Your task to perform on an android device: open app "Lyft - Rideshare, Bikes, Scooters & Transit" Image 0: 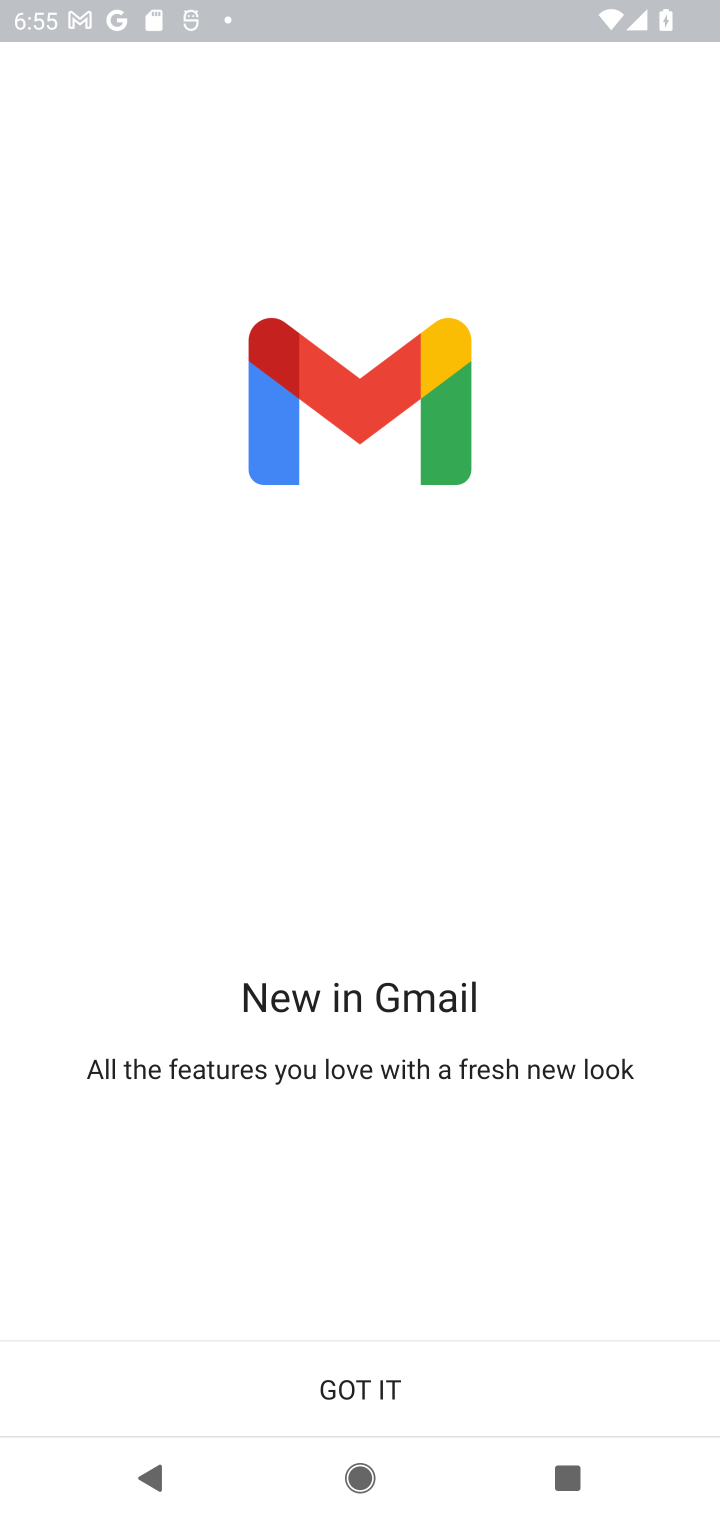
Step 0: press home button
Your task to perform on an android device: open app "Lyft - Rideshare, Bikes, Scooters & Transit" Image 1: 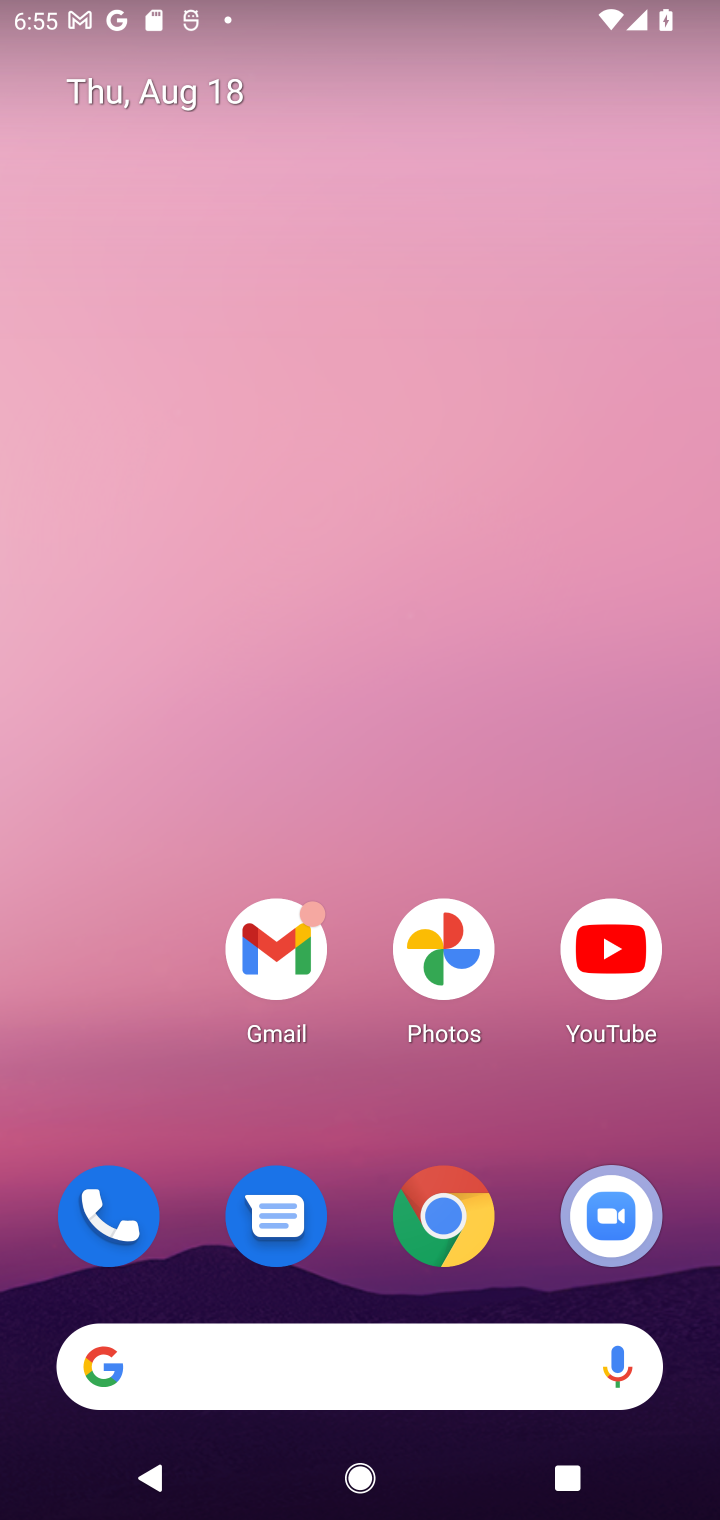
Step 1: drag from (514, 1111) to (509, 343)
Your task to perform on an android device: open app "Lyft - Rideshare, Bikes, Scooters & Transit" Image 2: 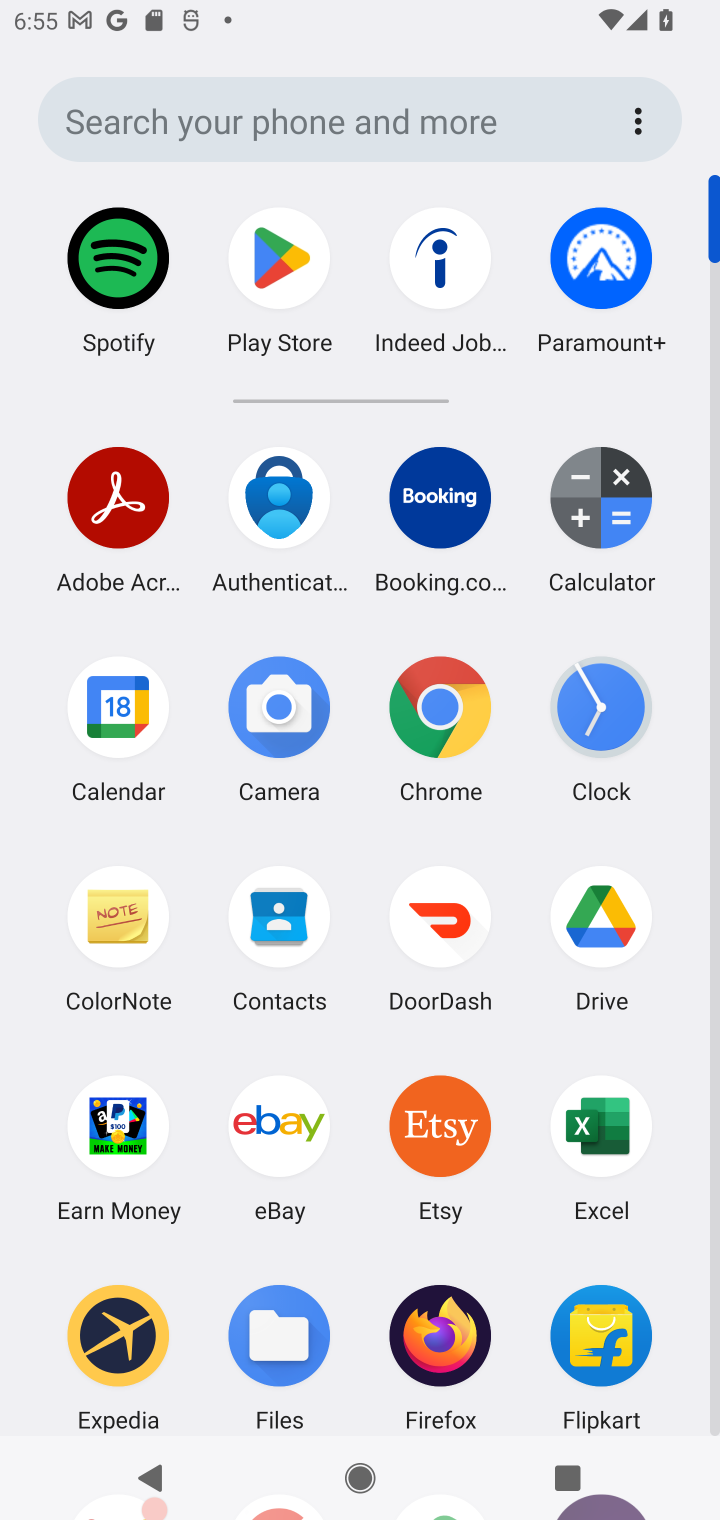
Step 2: drag from (520, 1274) to (460, 414)
Your task to perform on an android device: open app "Lyft - Rideshare, Bikes, Scooters & Transit" Image 3: 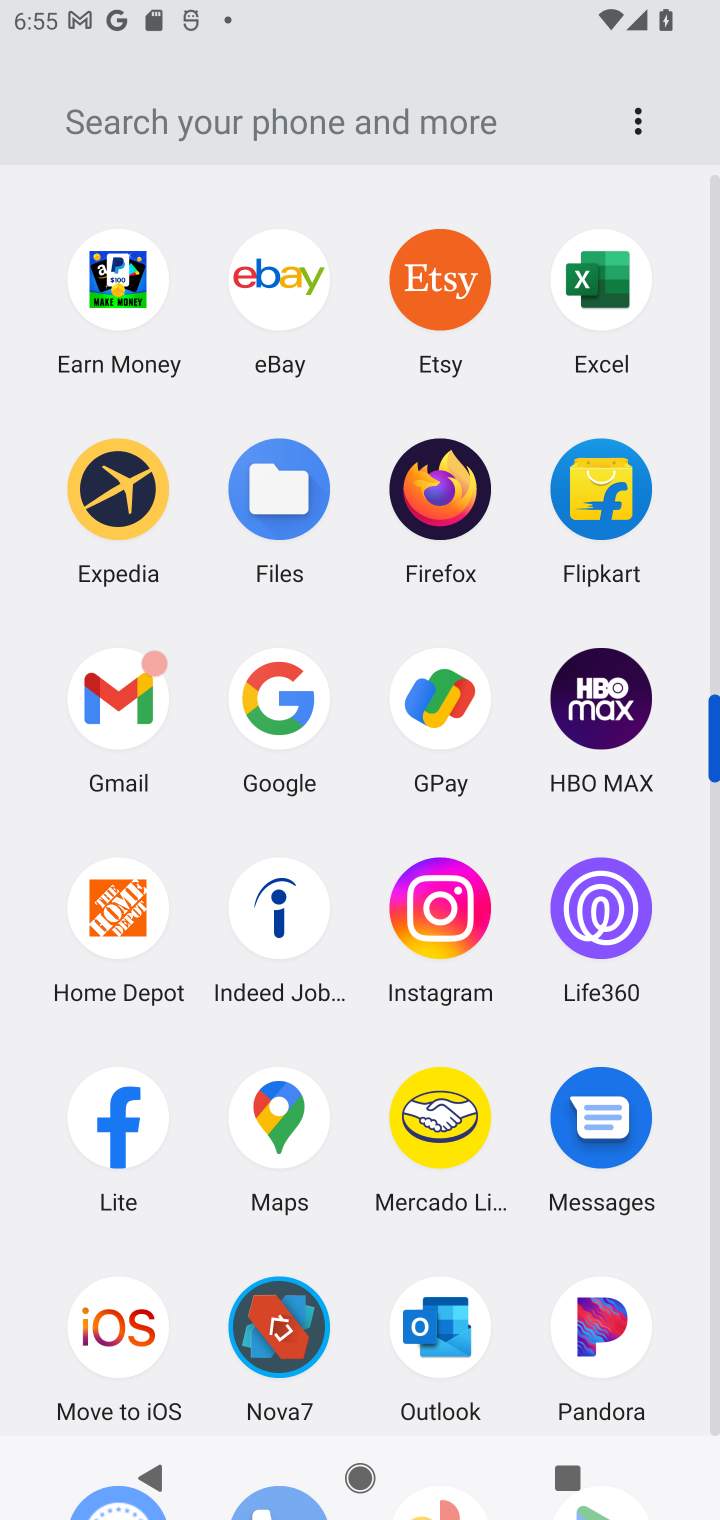
Step 3: drag from (527, 1268) to (486, 490)
Your task to perform on an android device: open app "Lyft - Rideshare, Bikes, Scooters & Transit" Image 4: 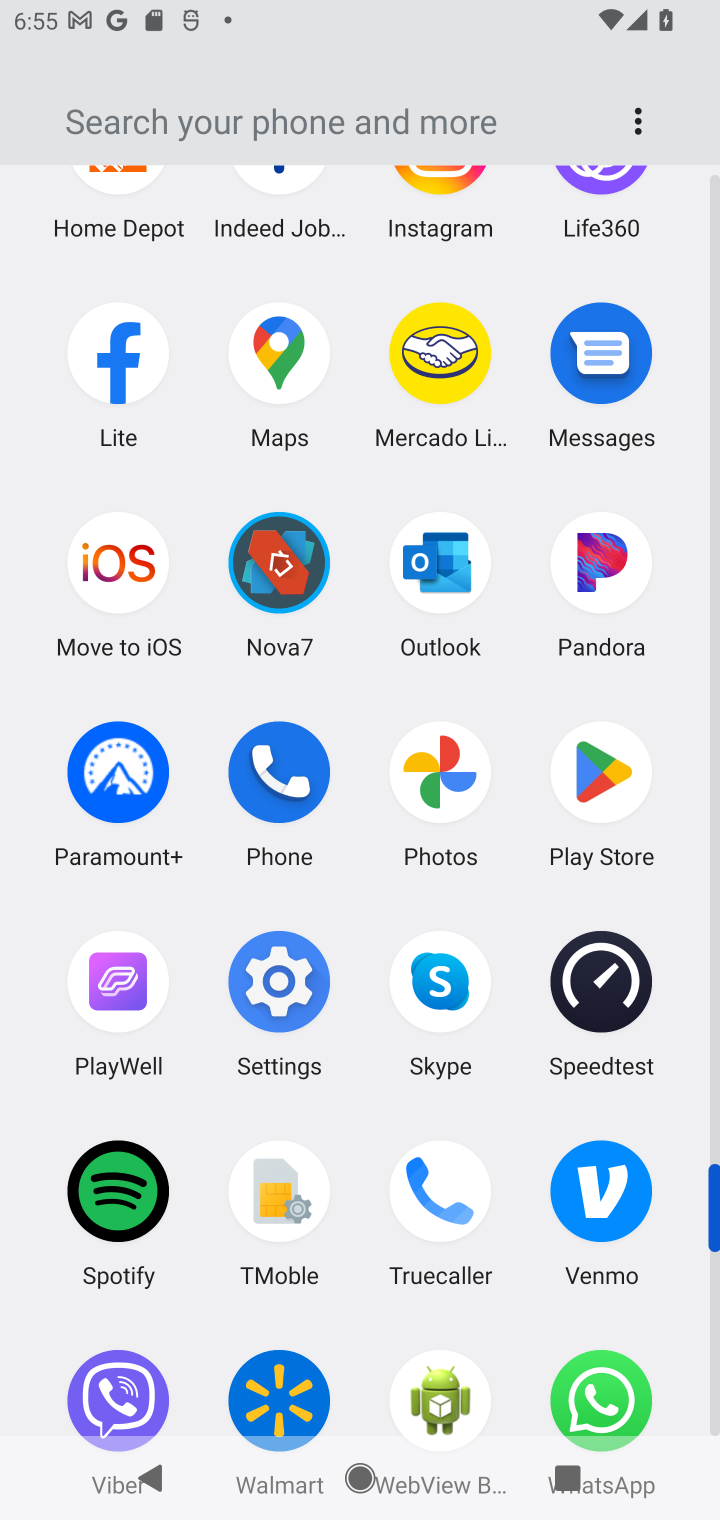
Step 4: click (597, 769)
Your task to perform on an android device: open app "Lyft - Rideshare, Bikes, Scooters & Transit" Image 5: 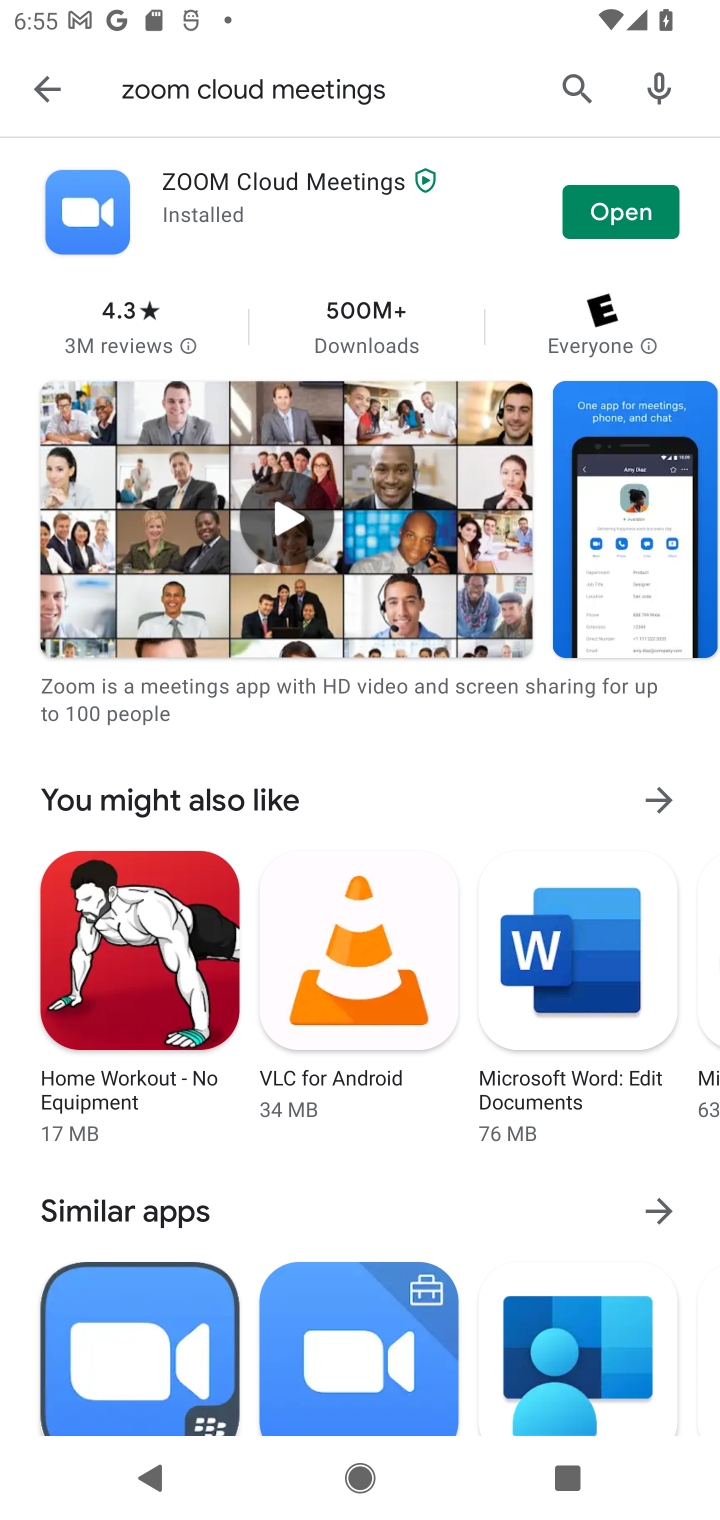
Step 5: click (576, 86)
Your task to perform on an android device: open app "Lyft - Rideshare, Bikes, Scooters & Transit" Image 6: 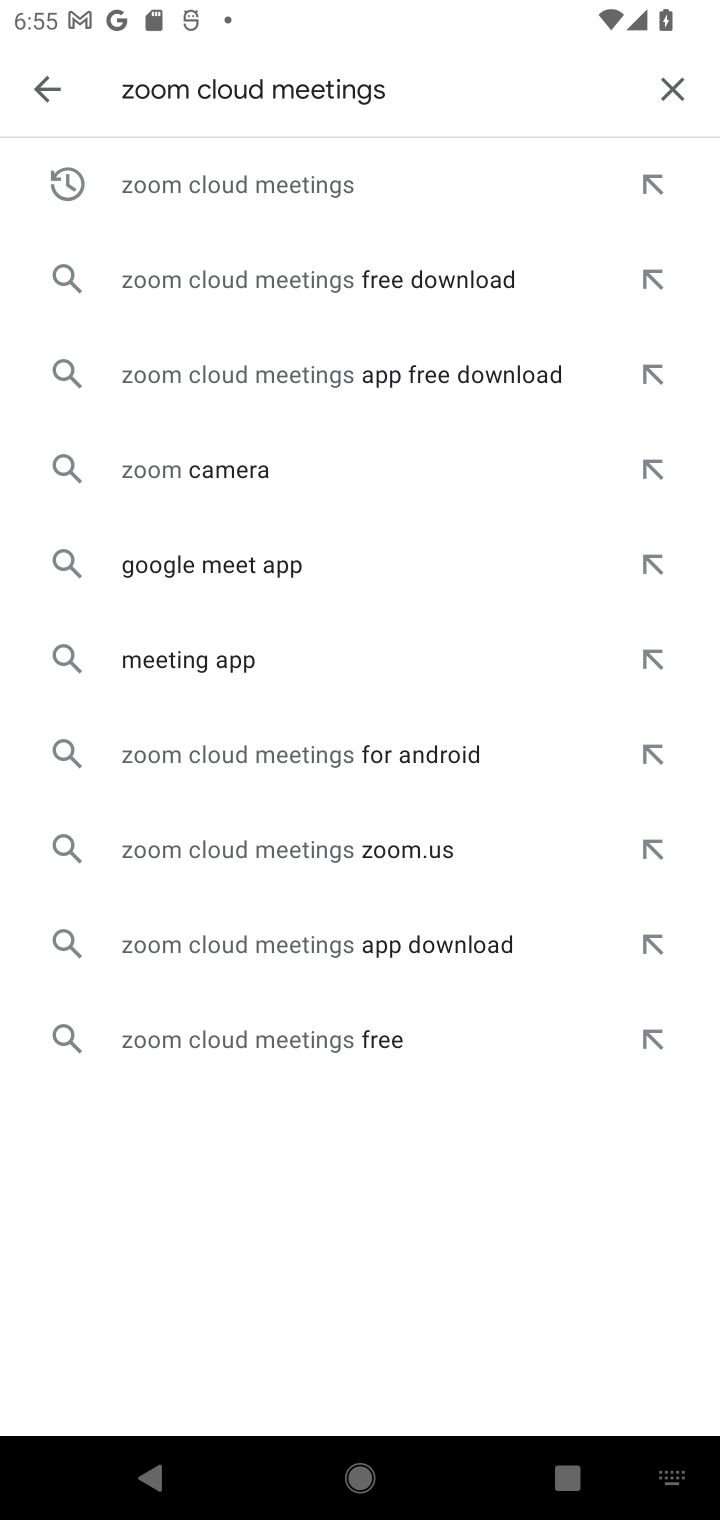
Step 6: click (671, 81)
Your task to perform on an android device: open app "Lyft - Rideshare, Bikes, Scooters & Transit" Image 7: 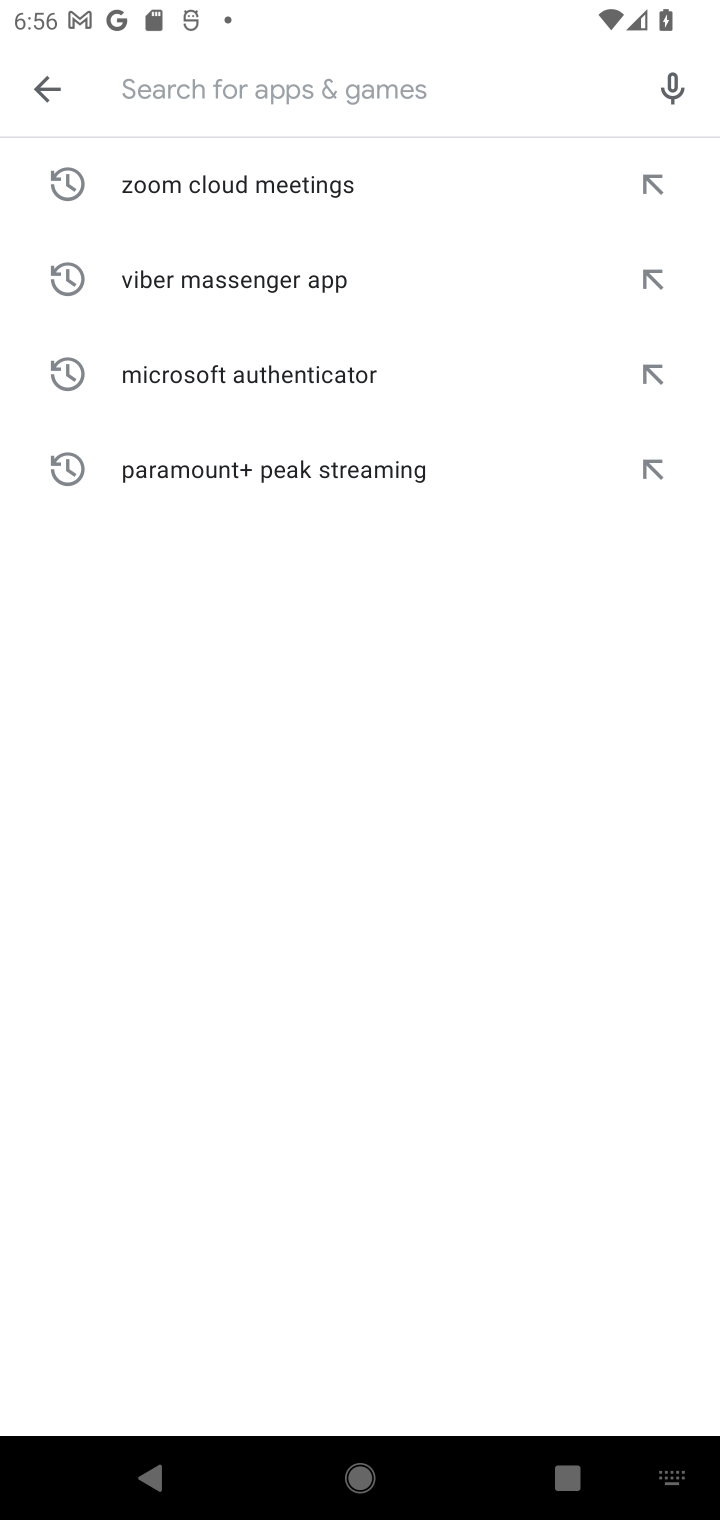
Step 7: type "Lyft"
Your task to perform on an android device: open app "Lyft - Rideshare, Bikes, Scooters & Transit" Image 8: 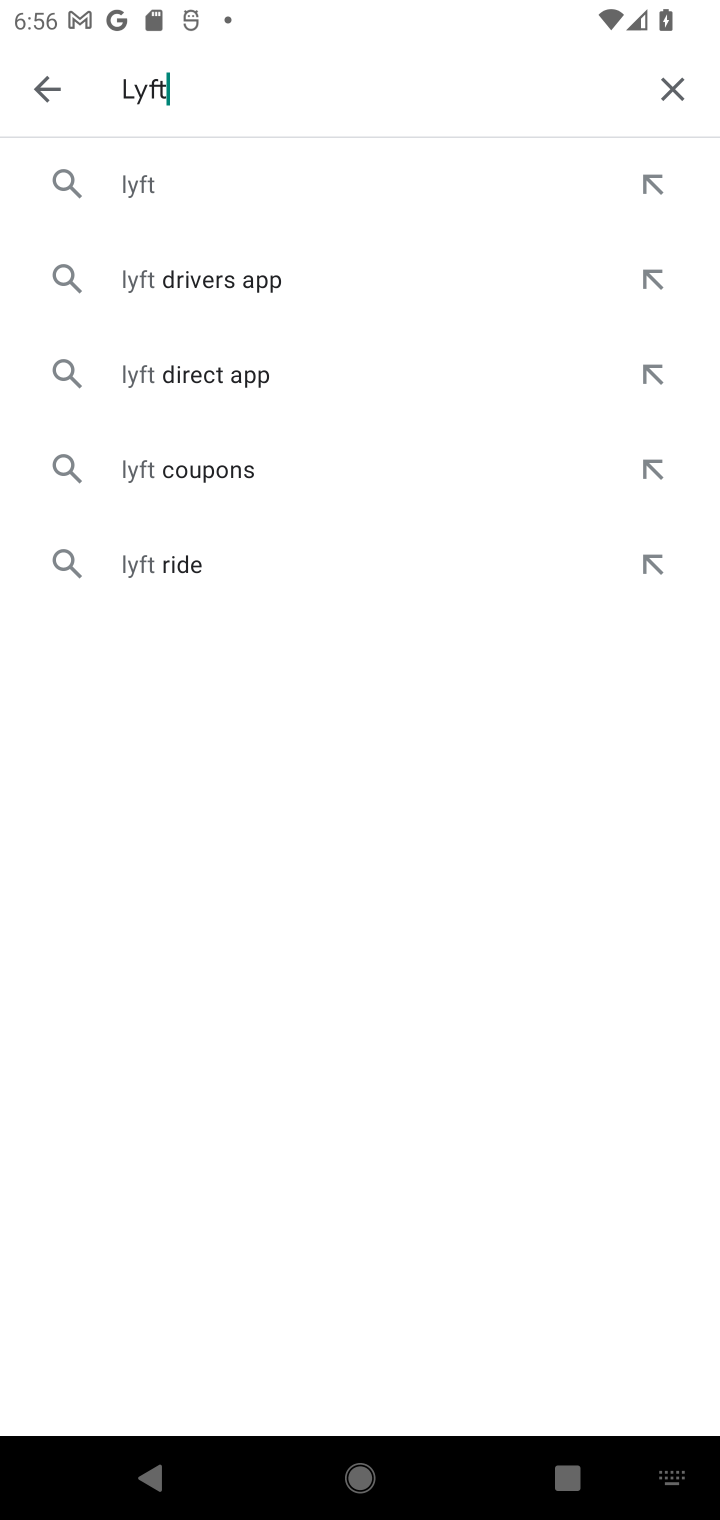
Step 8: type "Lyft - Rideshare, Bikes, Scooters & Transit"
Your task to perform on an android device: open app "Lyft - Rideshare, Bikes, Scooters & Transit" Image 9: 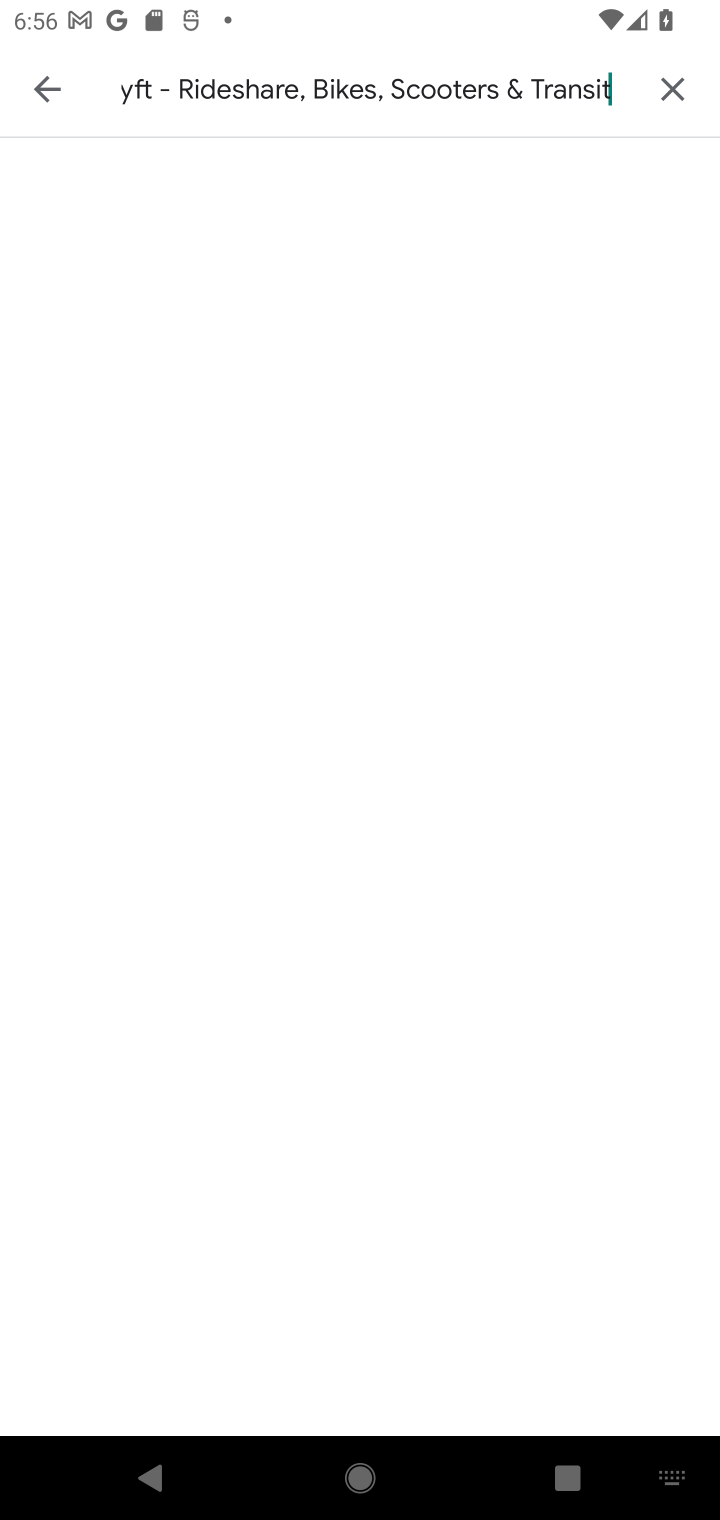
Step 9: click (674, 79)
Your task to perform on an android device: open app "Lyft - Rideshare, Bikes, Scooters & Transit" Image 10: 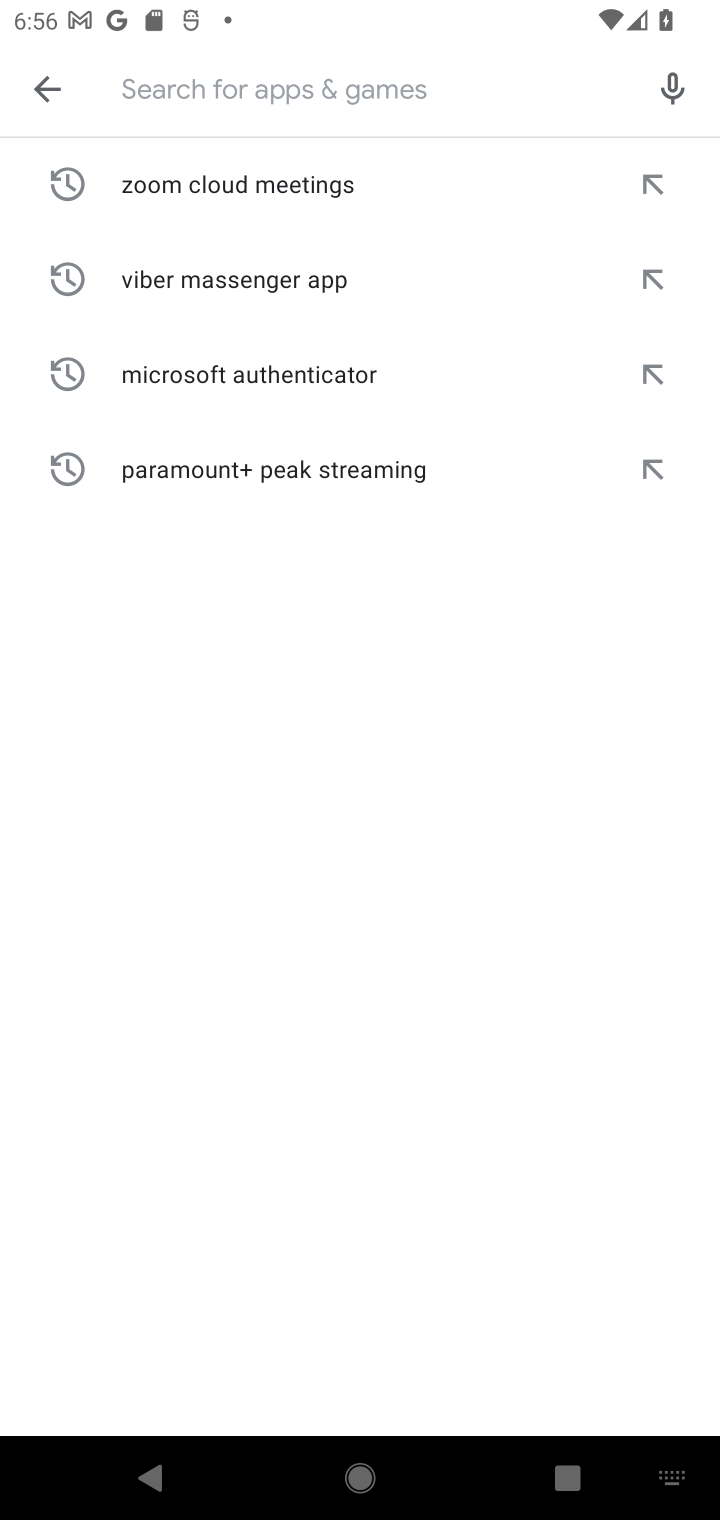
Step 10: type "Lyft - Rideshare, Bikes, Scooters & Transit"
Your task to perform on an android device: open app "Lyft - Rideshare, Bikes, Scooters & Transit" Image 11: 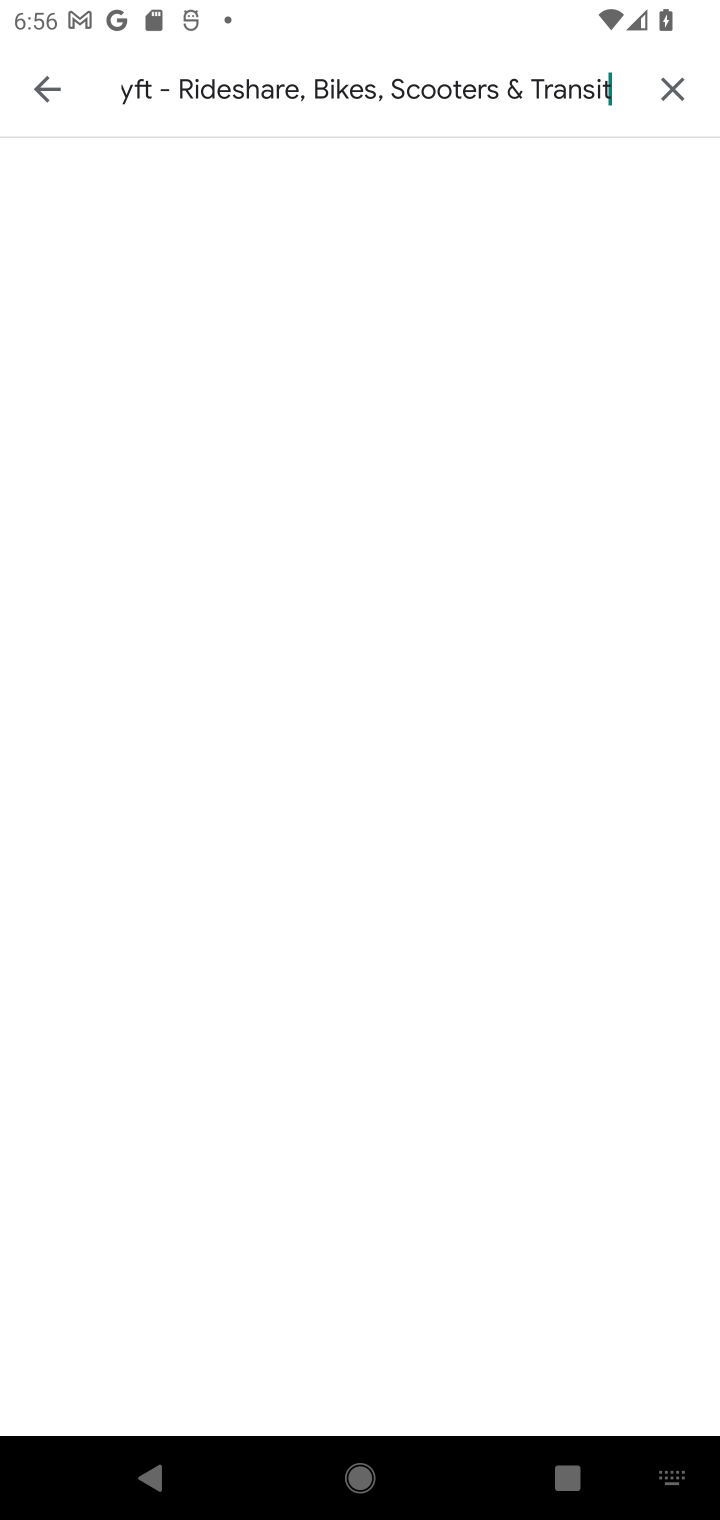
Step 11: task complete